Your task to perform on an android device: Open calendar and show me the third week of next month Image 0: 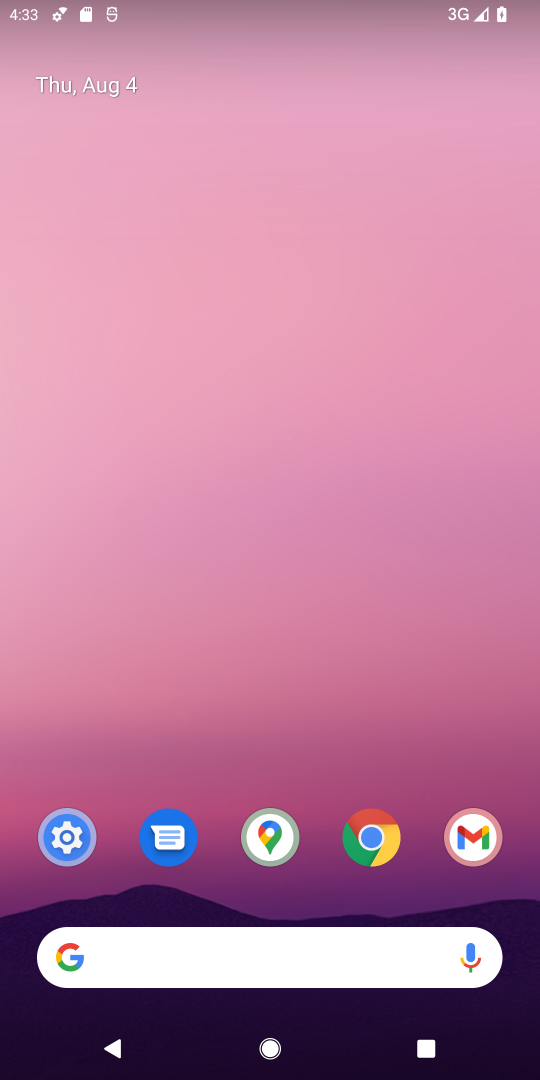
Step 0: drag from (297, 749) to (293, 83)
Your task to perform on an android device: Open calendar and show me the third week of next month Image 1: 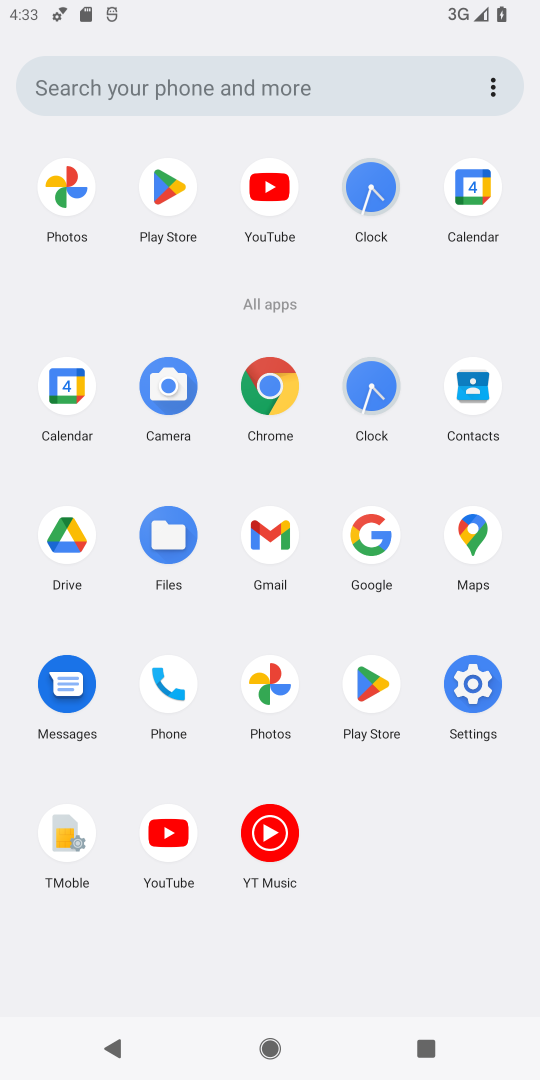
Step 1: click (476, 189)
Your task to perform on an android device: Open calendar and show me the third week of next month Image 2: 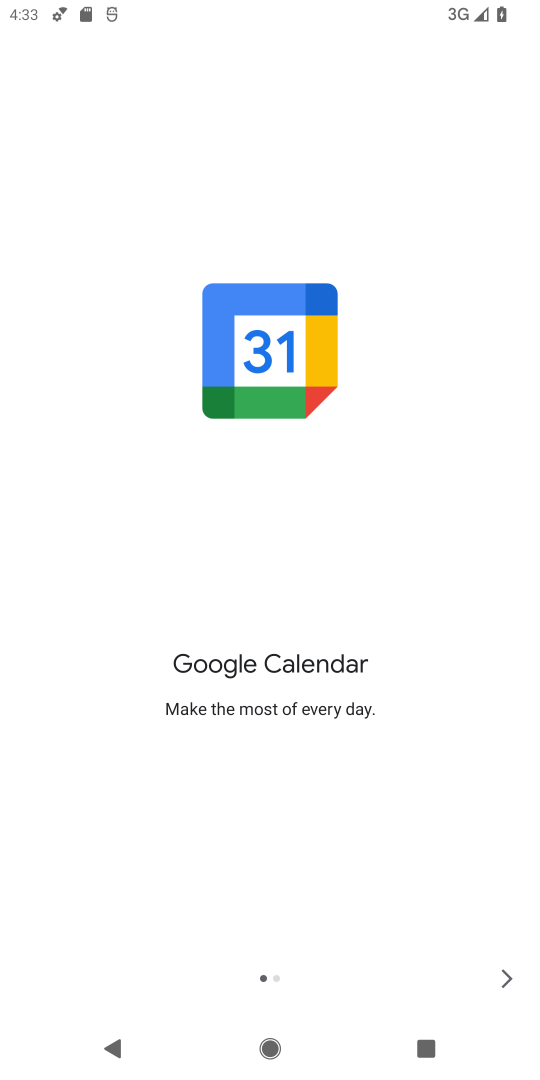
Step 2: click (513, 980)
Your task to perform on an android device: Open calendar and show me the third week of next month Image 3: 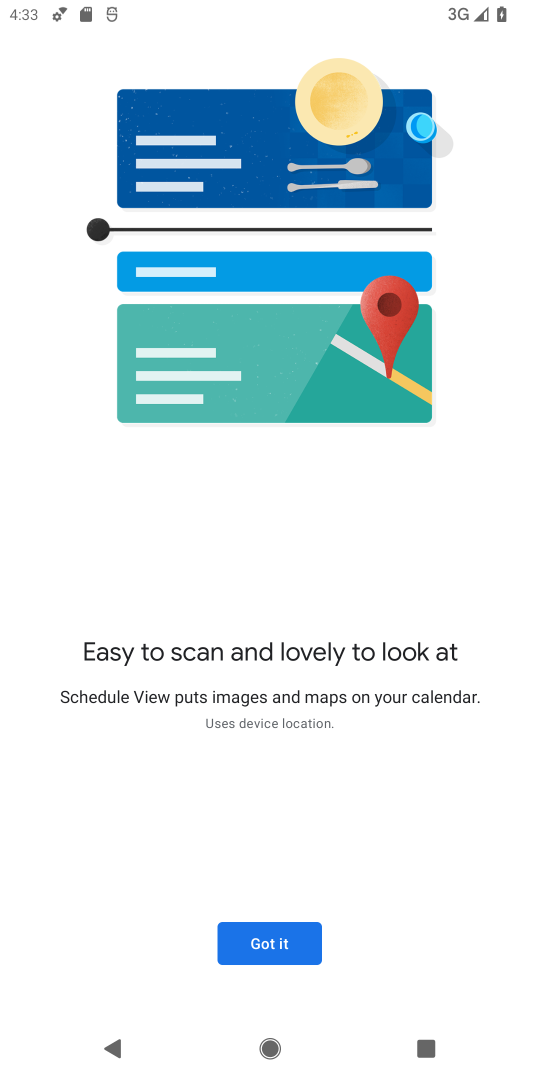
Step 3: click (248, 936)
Your task to perform on an android device: Open calendar and show me the third week of next month Image 4: 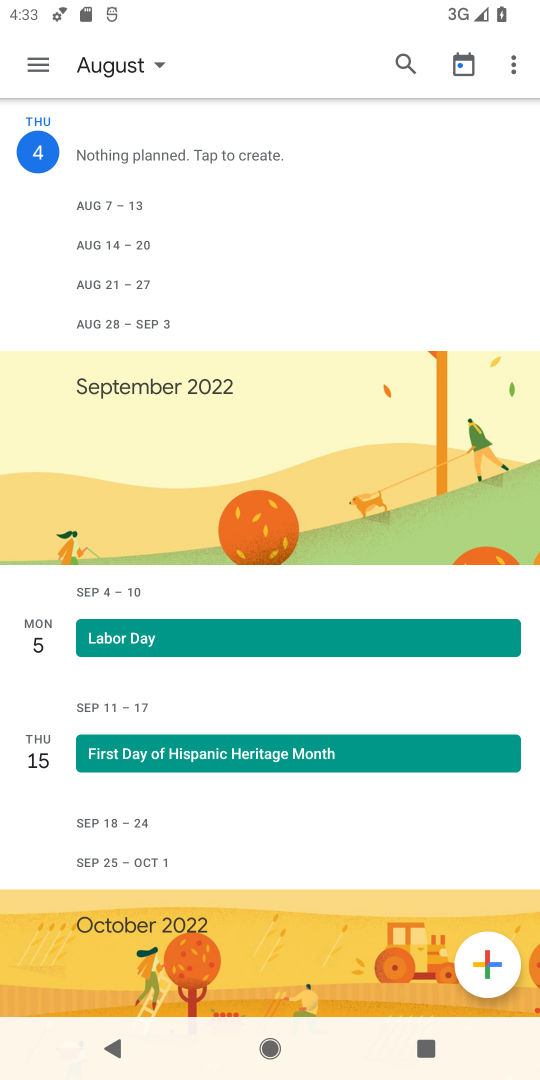
Step 4: click (125, 57)
Your task to perform on an android device: Open calendar and show me the third week of next month Image 5: 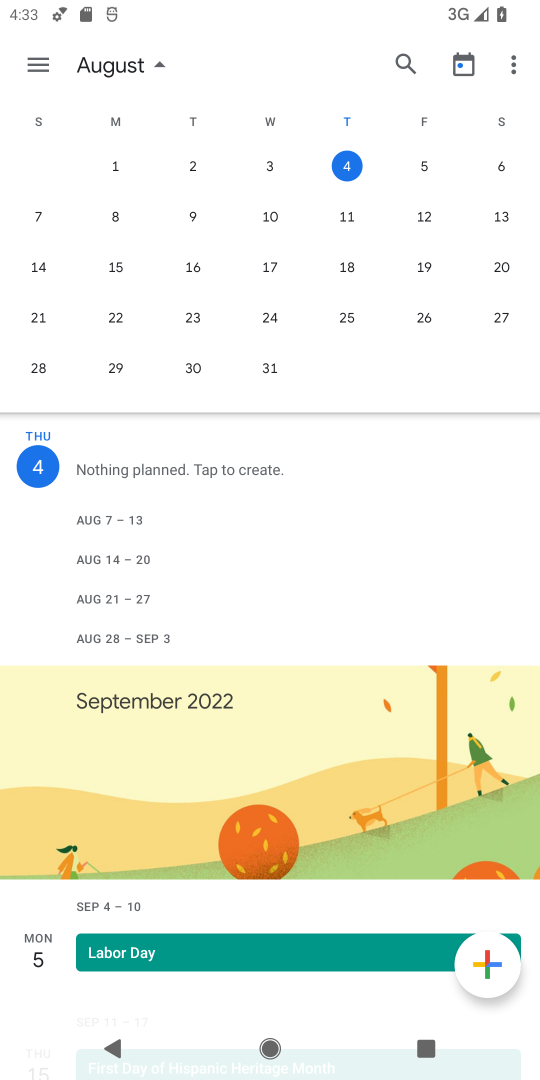
Step 5: drag from (506, 230) to (81, 228)
Your task to perform on an android device: Open calendar and show me the third week of next month Image 6: 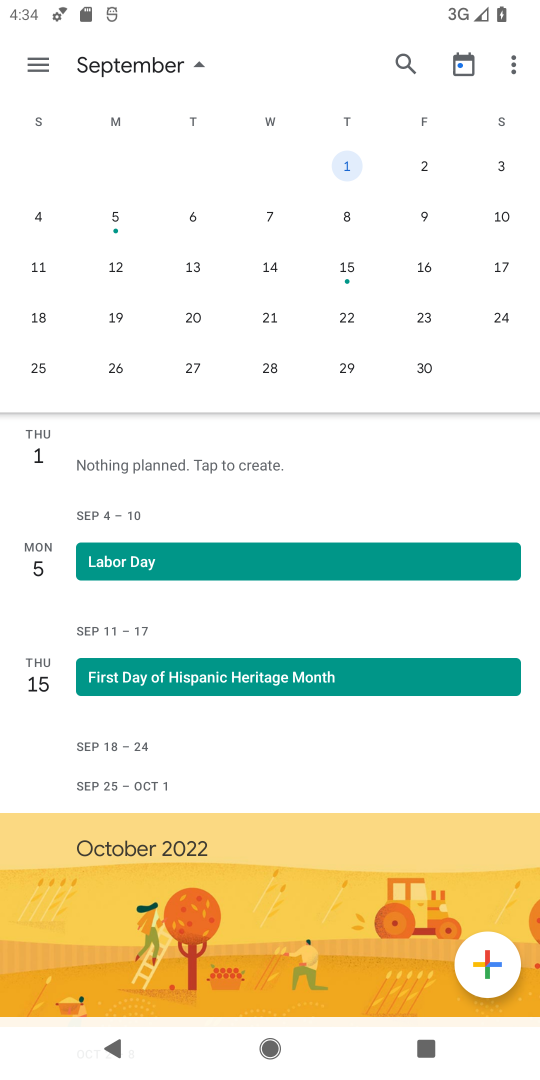
Step 6: click (45, 277)
Your task to perform on an android device: Open calendar and show me the third week of next month Image 7: 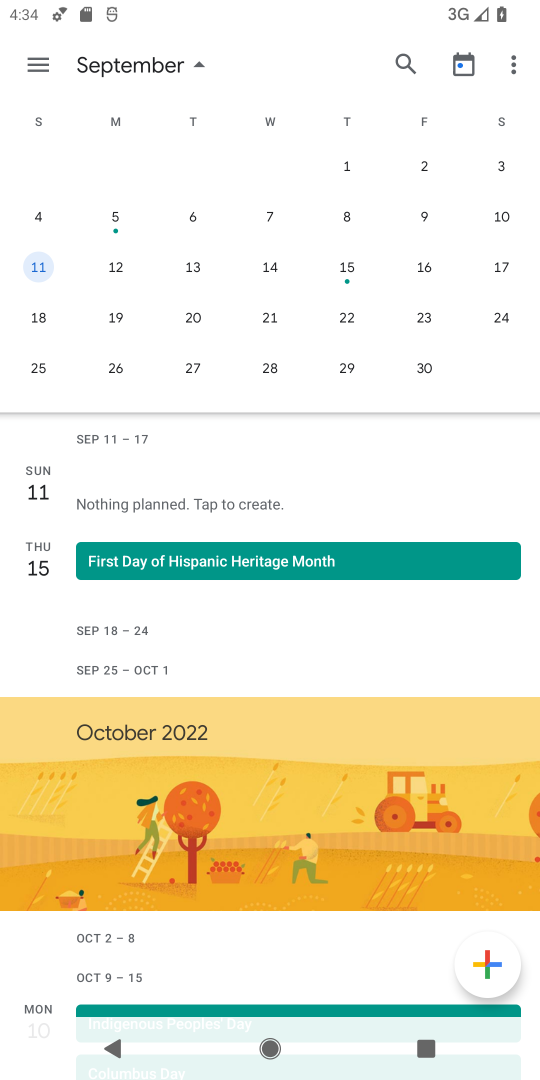
Step 7: task complete